Your task to perform on an android device: Go to Android settings Image 0: 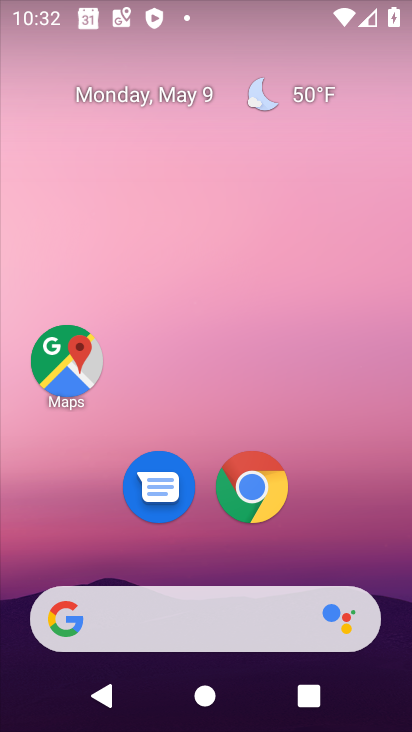
Step 0: drag from (44, 599) to (295, 34)
Your task to perform on an android device: Go to Android settings Image 1: 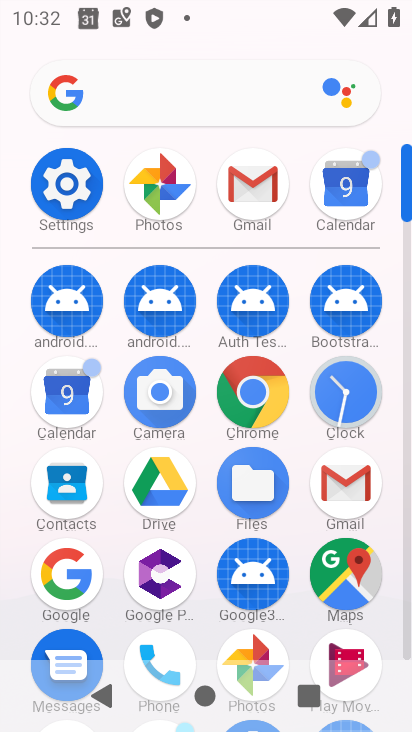
Step 1: click (86, 181)
Your task to perform on an android device: Go to Android settings Image 2: 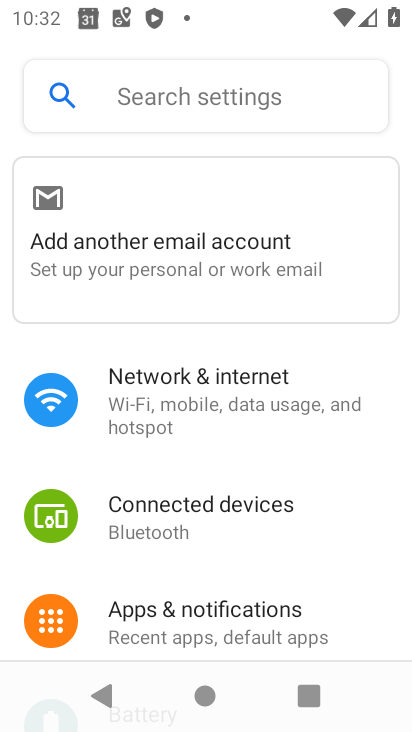
Step 2: drag from (38, 700) to (385, 129)
Your task to perform on an android device: Go to Android settings Image 3: 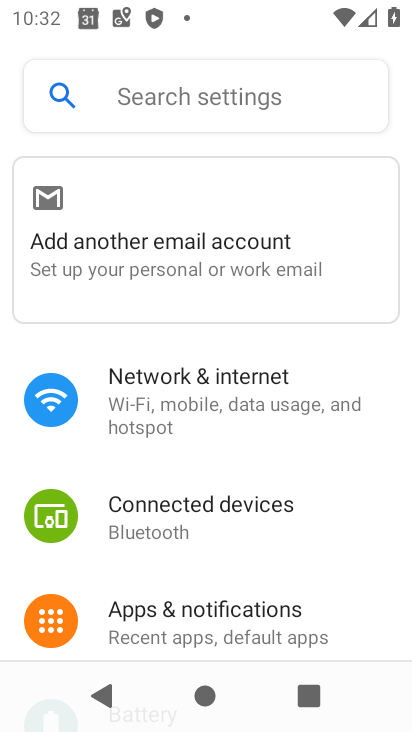
Step 3: drag from (10, 621) to (373, 148)
Your task to perform on an android device: Go to Android settings Image 4: 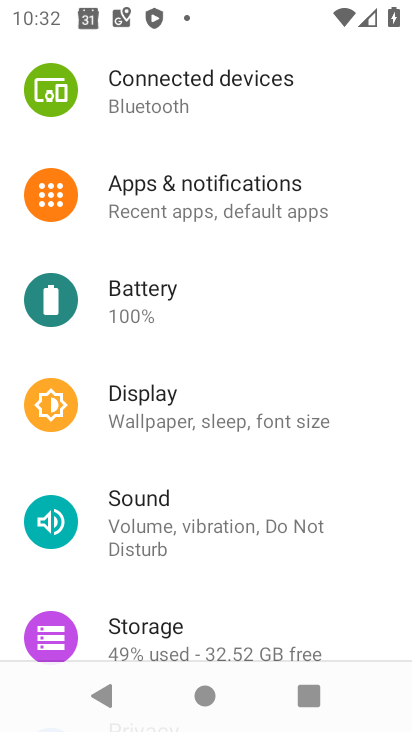
Step 4: drag from (82, 544) to (325, 114)
Your task to perform on an android device: Go to Android settings Image 5: 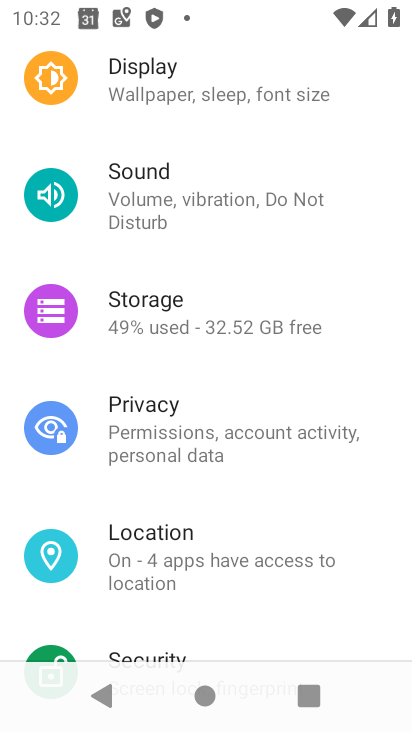
Step 5: drag from (13, 638) to (309, 166)
Your task to perform on an android device: Go to Android settings Image 6: 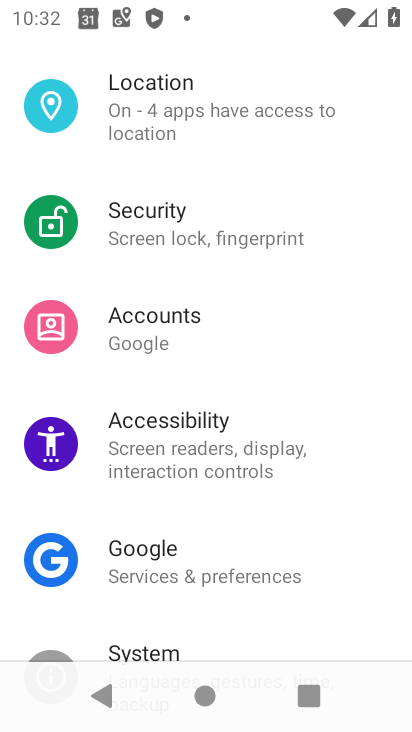
Step 6: drag from (40, 452) to (230, 219)
Your task to perform on an android device: Go to Android settings Image 7: 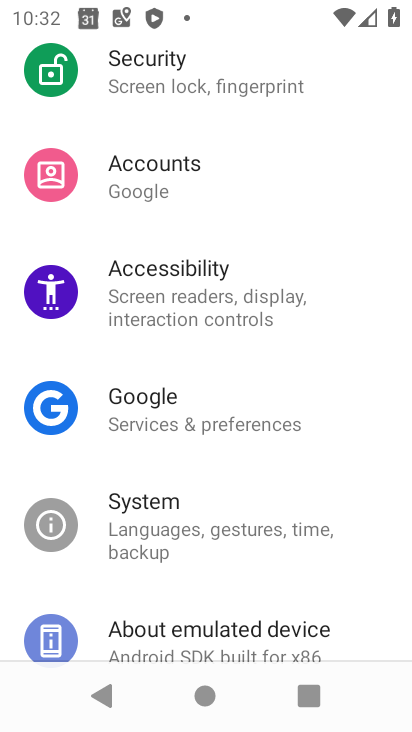
Step 7: drag from (6, 585) to (233, 354)
Your task to perform on an android device: Go to Android settings Image 8: 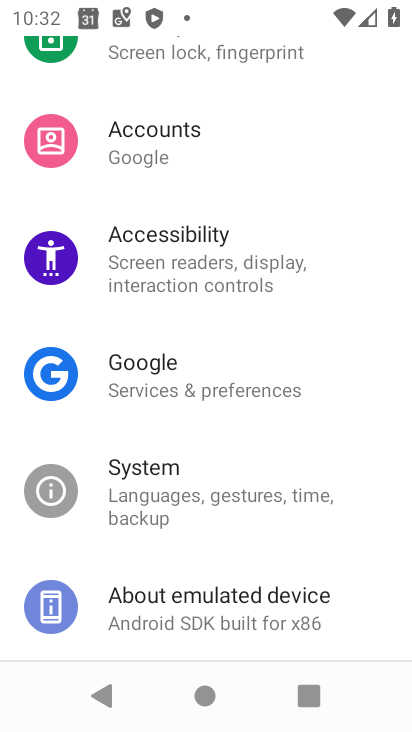
Step 8: click (63, 631)
Your task to perform on an android device: Go to Android settings Image 9: 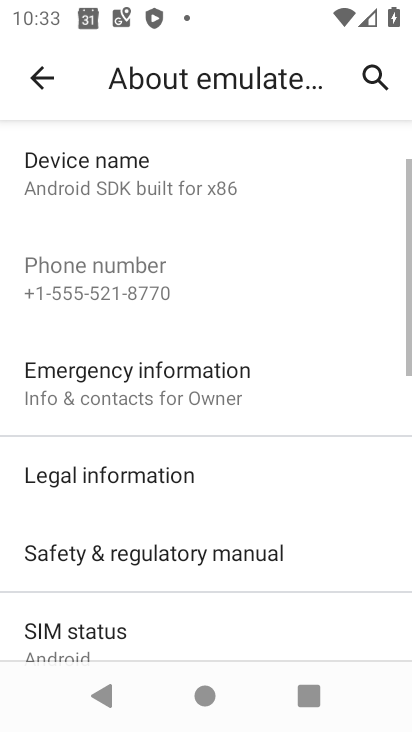
Step 9: task complete